Your task to perform on an android device: toggle pop-ups in chrome Image 0: 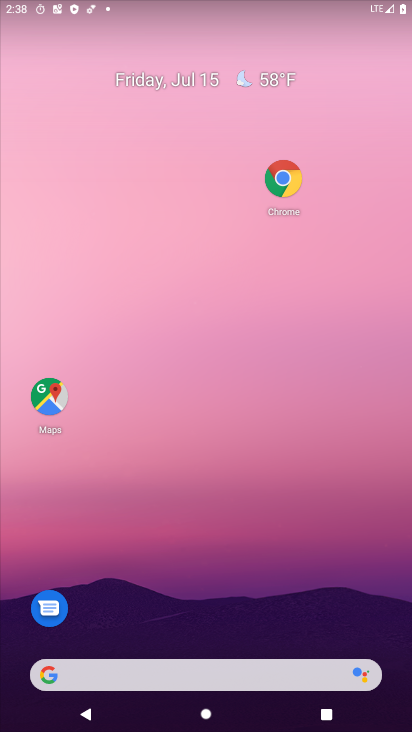
Step 0: click (292, 169)
Your task to perform on an android device: toggle pop-ups in chrome Image 1: 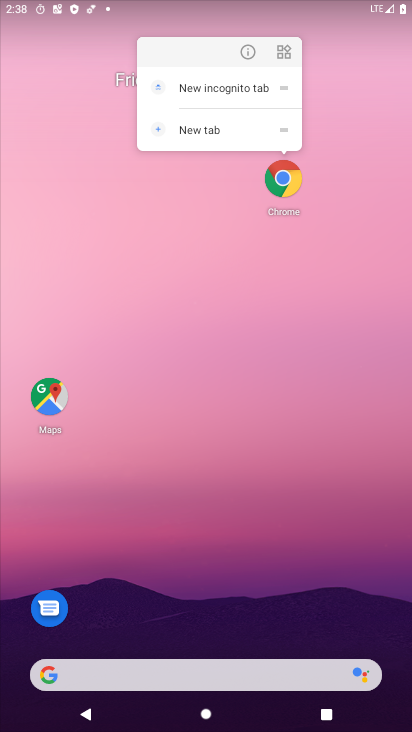
Step 1: click (274, 172)
Your task to perform on an android device: toggle pop-ups in chrome Image 2: 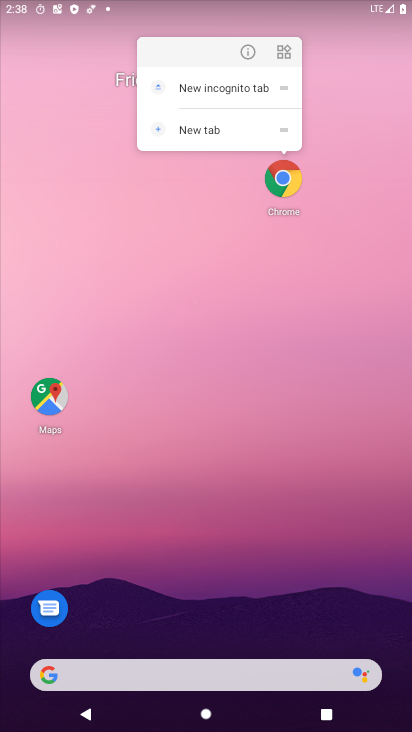
Step 2: click (274, 172)
Your task to perform on an android device: toggle pop-ups in chrome Image 3: 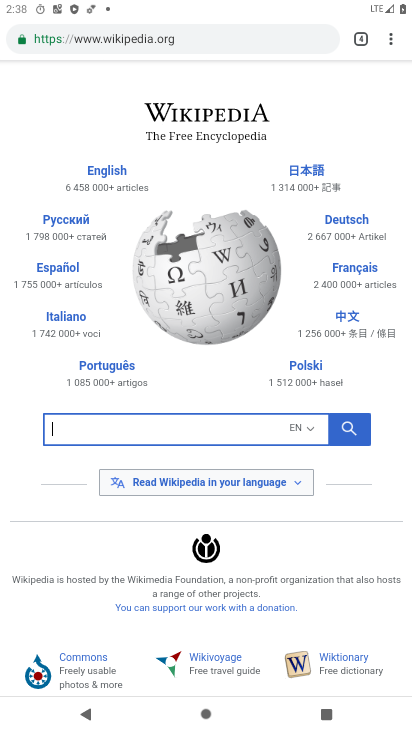
Step 3: drag from (395, 35) to (264, 467)
Your task to perform on an android device: toggle pop-ups in chrome Image 4: 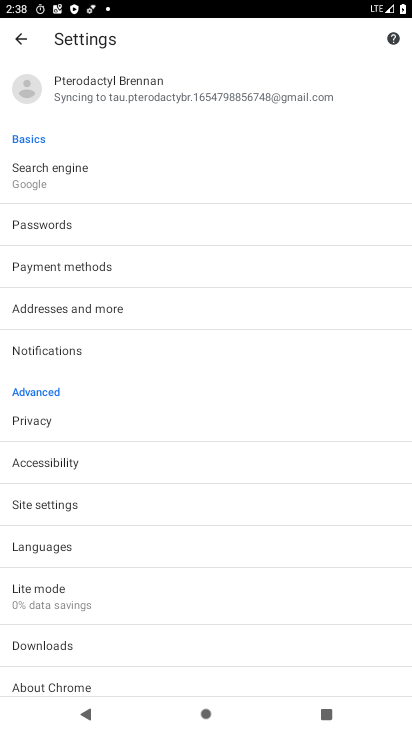
Step 4: click (55, 511)
Your task to perform on an android device: toggle pop-ups in chrome Image 5: 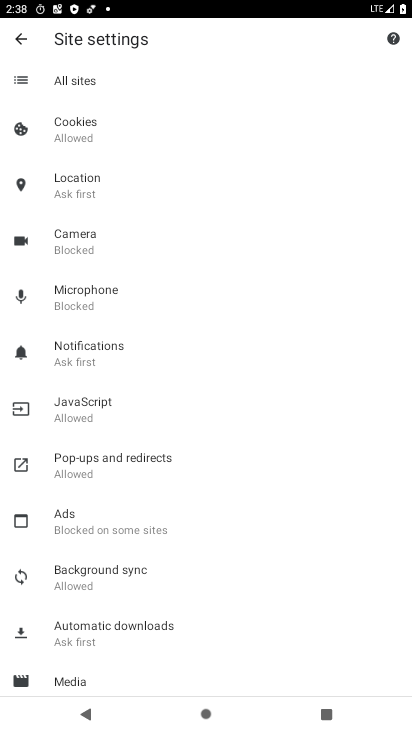
Step 5: click (97, 466)
Your task to perform on an android device: toggle pop-ups in chrome Image 6: 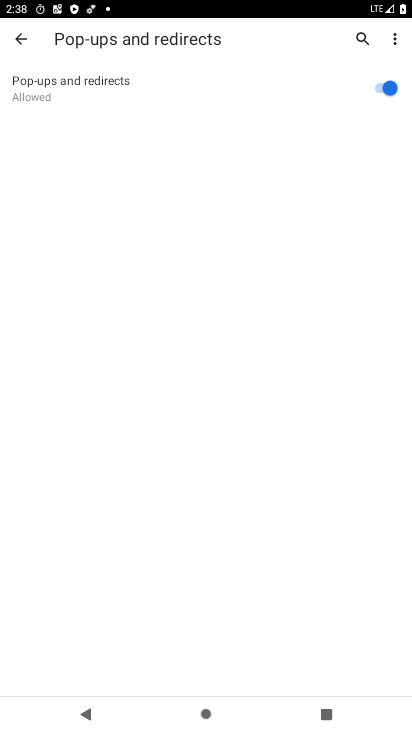
Step 6: click (266, 86)
Your task to perform on an android device: toggle pop-ups in chrome Image 7: 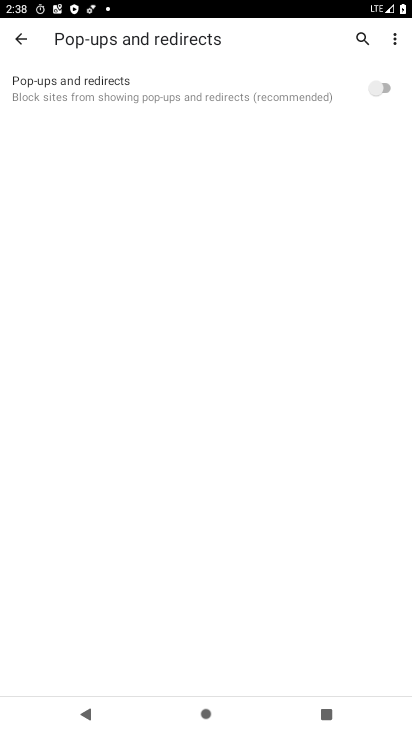
Step 7: task complete